Your task to perform on an android device: open app "Indeed Job Search" (install if not already installed) and enter user name: "quixotic@inbox.com" and password: "microphones" Image 0: 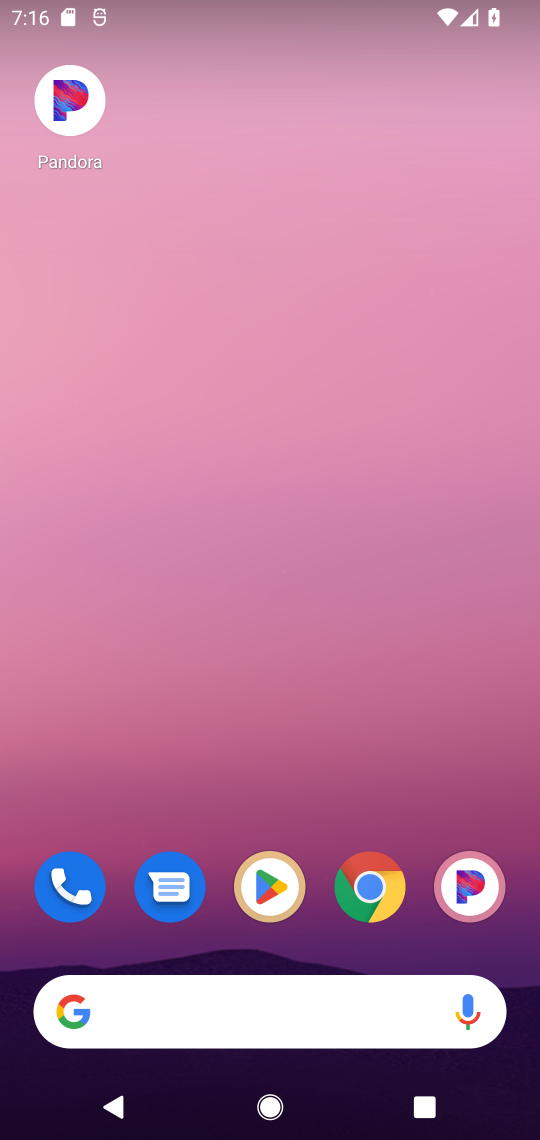
Step 0: click (261, 883)
Your task to perform on an android device: open app "Indeed Job Search" (install if not already installed) and enter user name: "quixotic@inbox.com" and password: "microphones" Image 1: 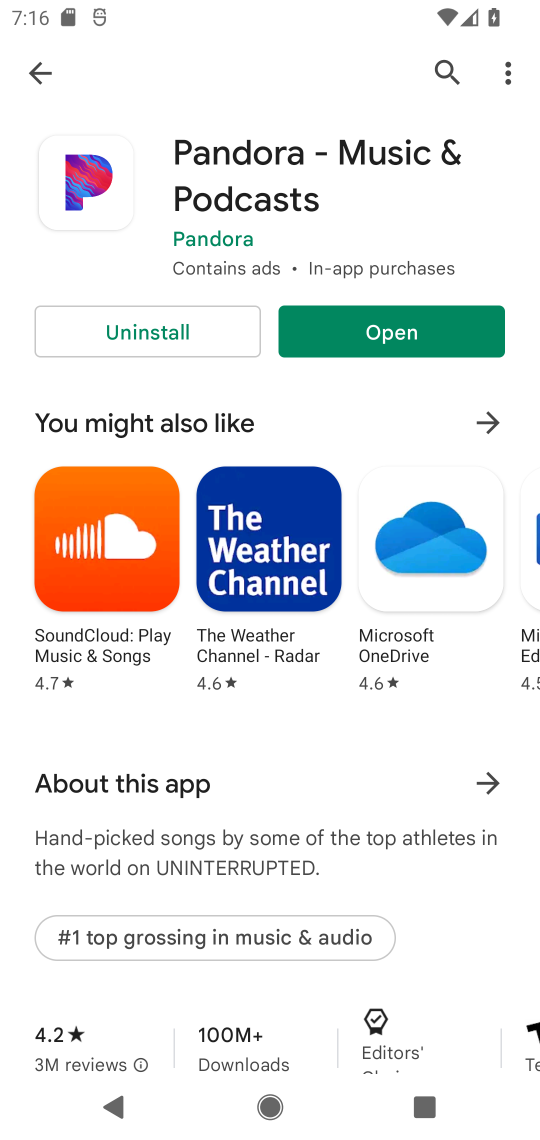
Step 1: click (437, 58)
Your task to perform on an android device: open app "Indeed Job Search" (install if not already installed) and enter user name: "quixotic@inbox.com" and password: "microphones" Image 2: 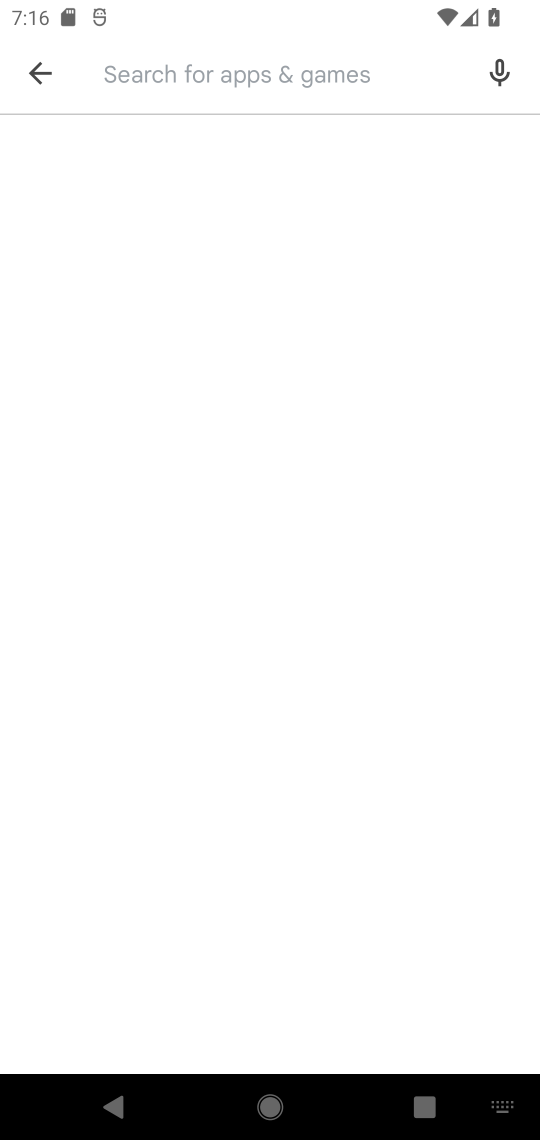
Step 2: type "Indeed Job Search"
Your task to perform on an android device: open app "Indeed Job Search" (install if not already installed) and enter user name: "quixotic@inbox.com" and password: "microphones" Image 3: 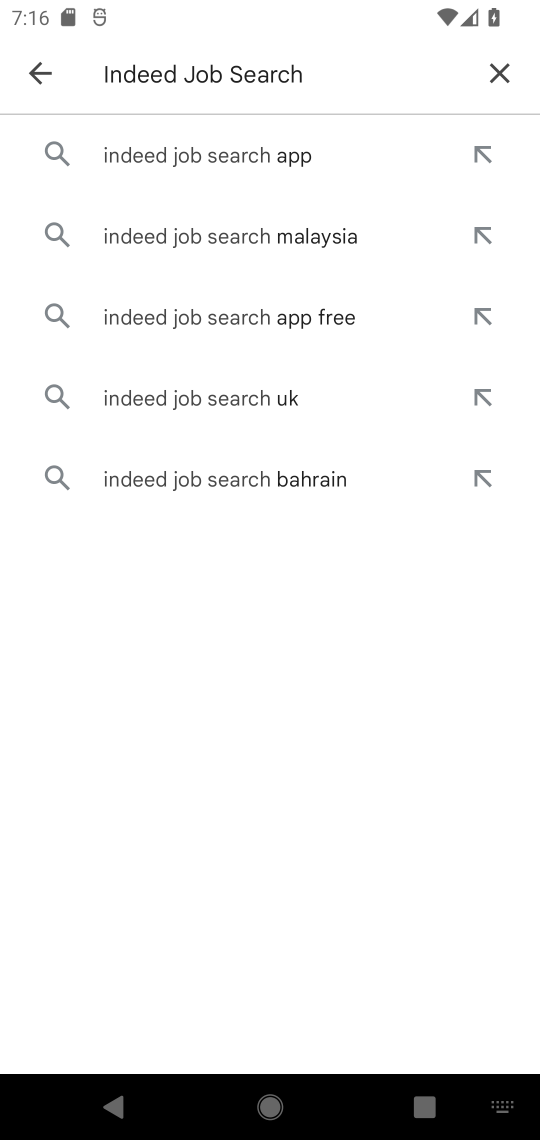
Step 3: click (189, 144)
Your task to perform on an android device: open app "Indeed Job Search" (install if not already installed) and enter user name: "quixotic@inbox.com" and password: "microphones" Image 4: 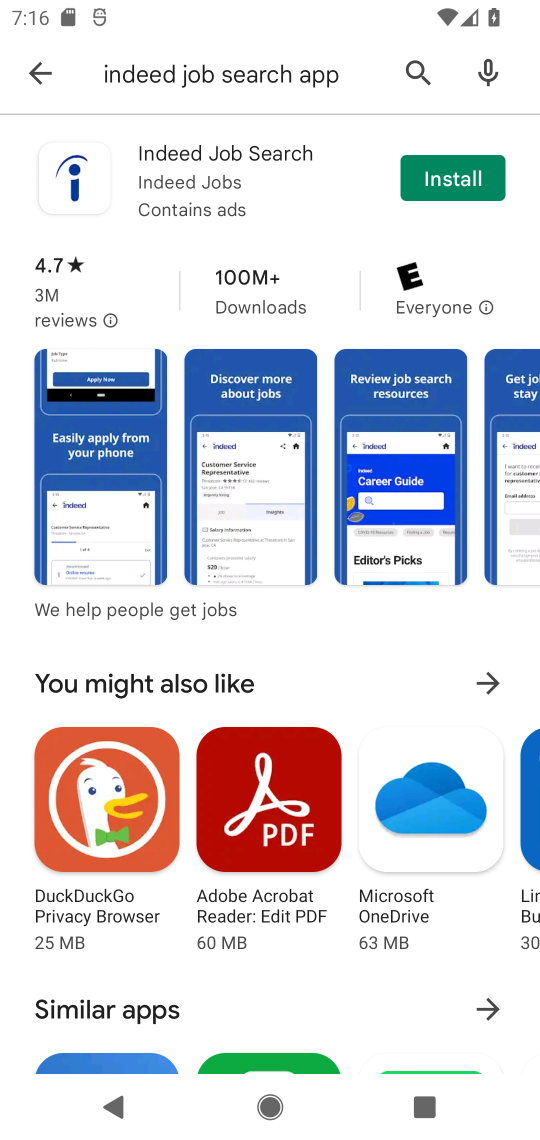
Step 4: click (450, 177)
Your task to perform on an android device: open app "Indeed Job Search" (install if not already installed) and enter user name: "quixotic@inbox.com" and password: "microphones" Image 5: 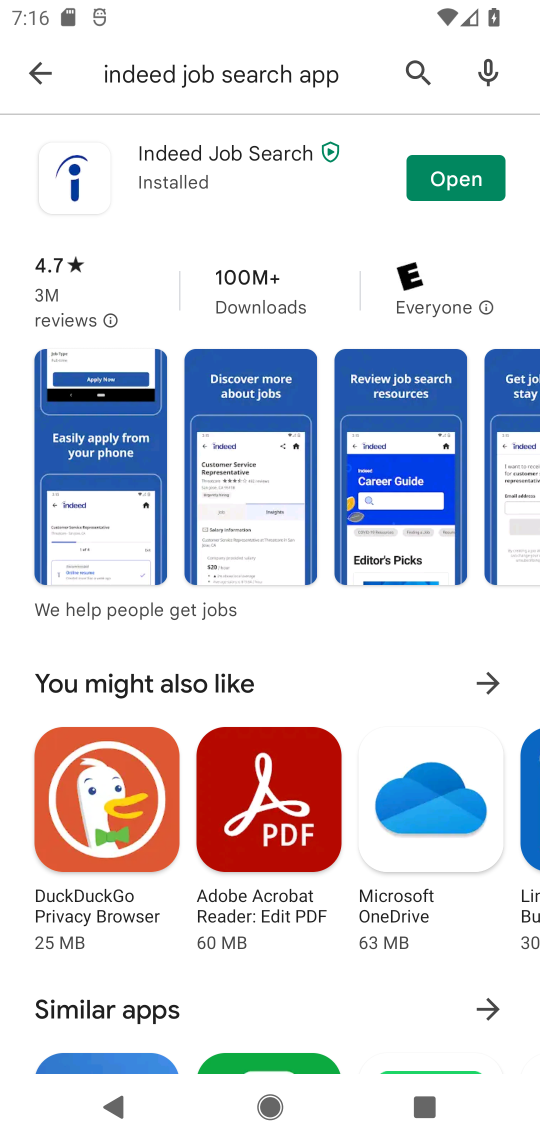
Step 5: click (464, 176)
Your task to perform on an android device: open app "Indeed Job Search" (install if not already installed) and enter user name: "quixotic@inbox.com" and password: "microphones" Image 6: 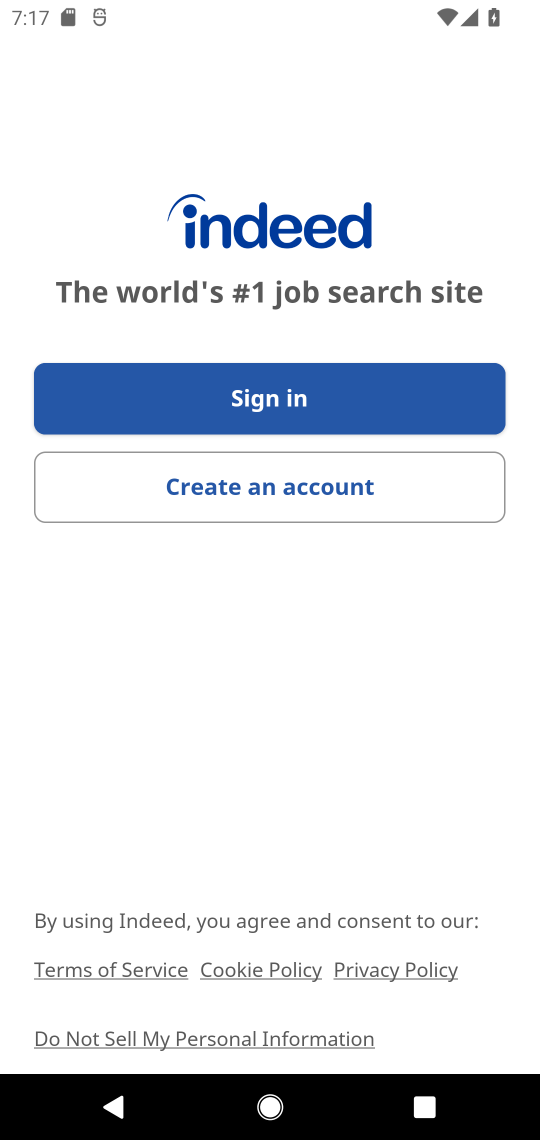
Step 6: task complete